Your task to perform on an android device: Open battery settings Image 0: 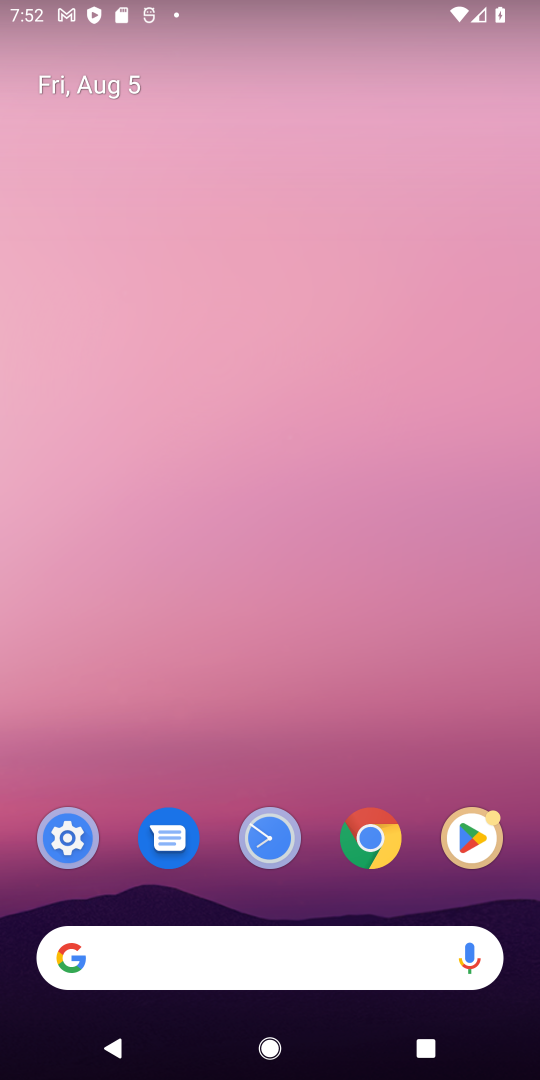
Step 0: drag from (269, 938) to (262, 338)
Your task to perform on an android device: Open battery settings Image 1: 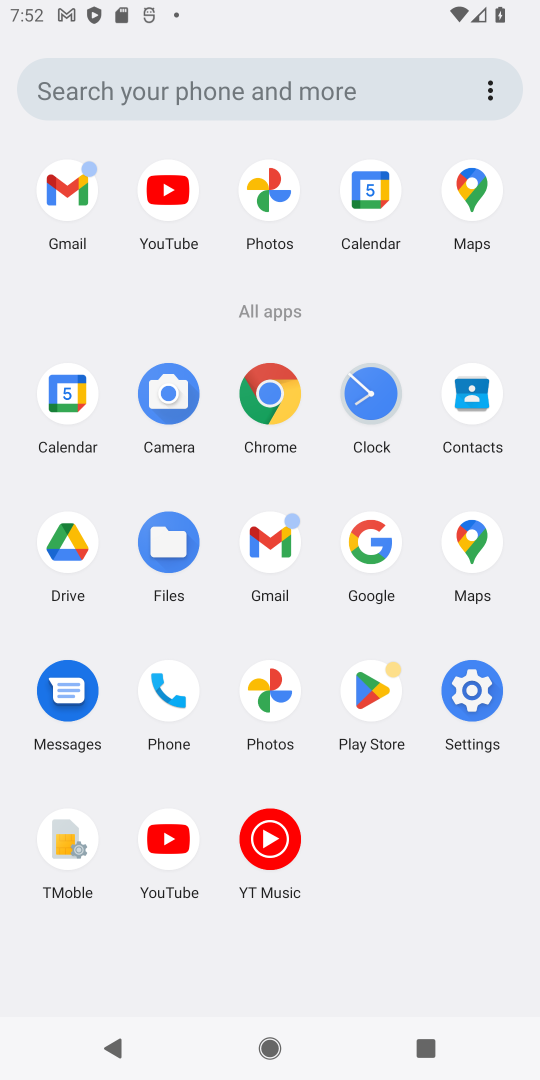
Step 1: click (495, 693)
Your task to perform on an android device: Open battery settings Image 2: 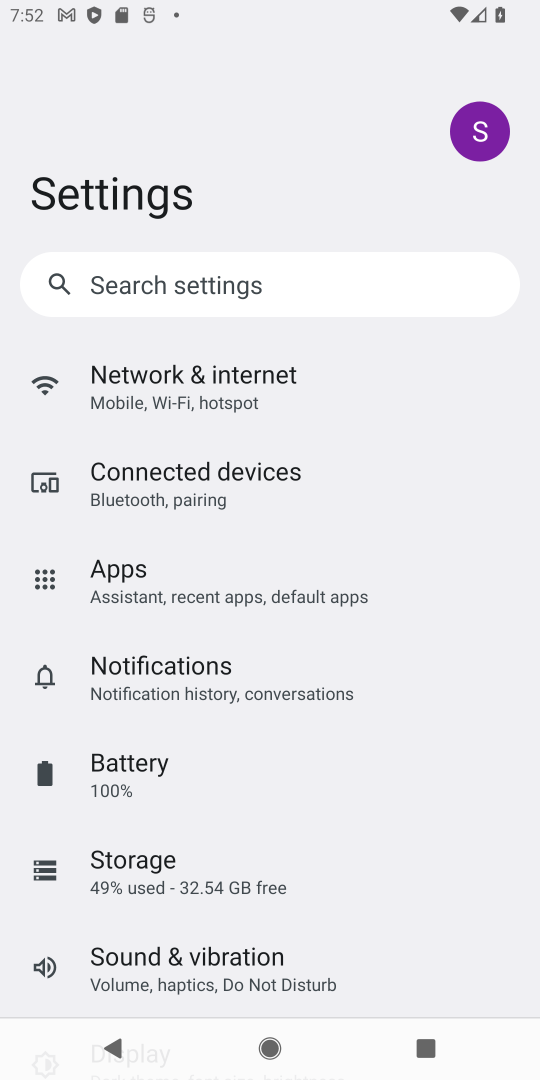
Step 2: click (138, 774)
Your task to perform on an android device: Open battery settings Image 3: 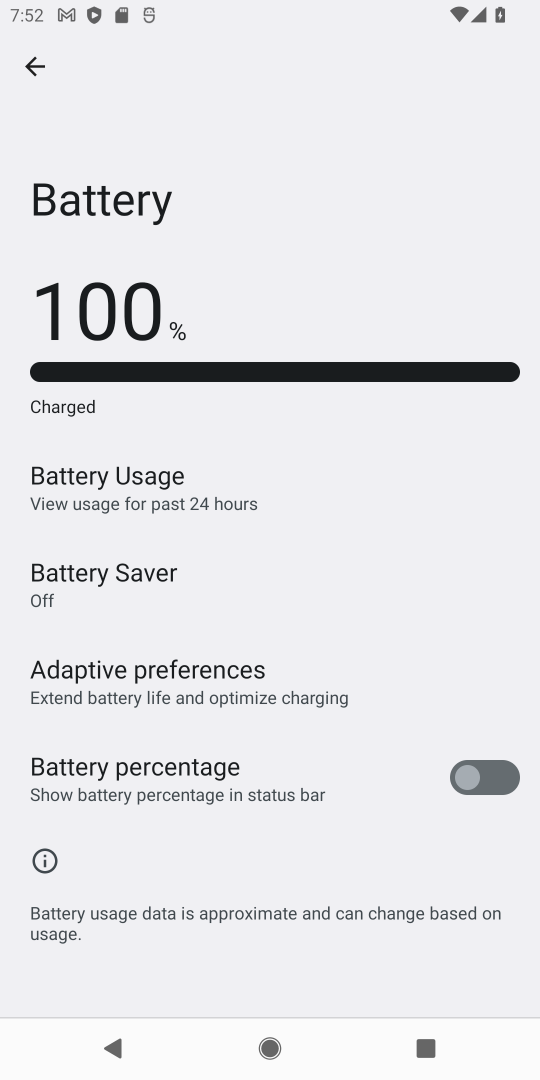
Step 3: task complete